Your task to perform on an android device: uninstall "Facebook Lite" Image 0: 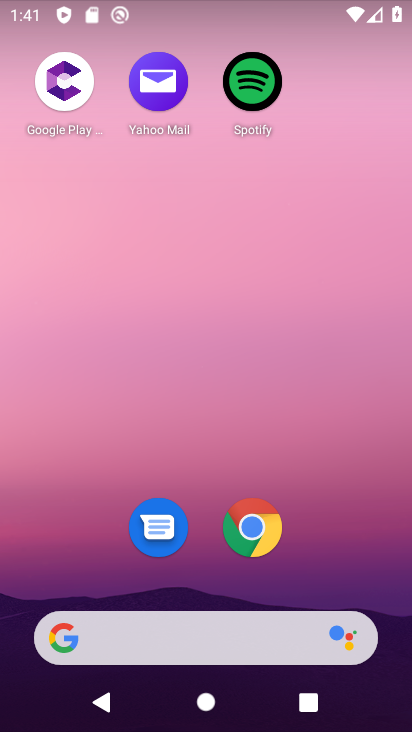
Step 0: drag from (190, 628) to (163, 11)
Your task to perform on an android device: uninstall "Facebook Lite" Image 1: 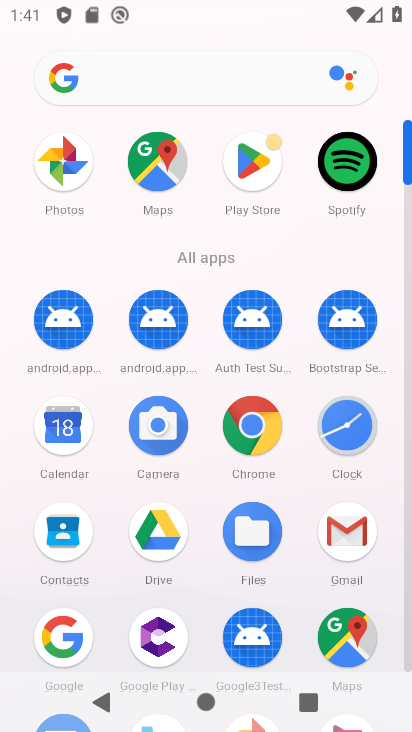
Step 1: click (246, 169)
Your task to perform on an android device: uninstall "Facebook Lite" Image 2: 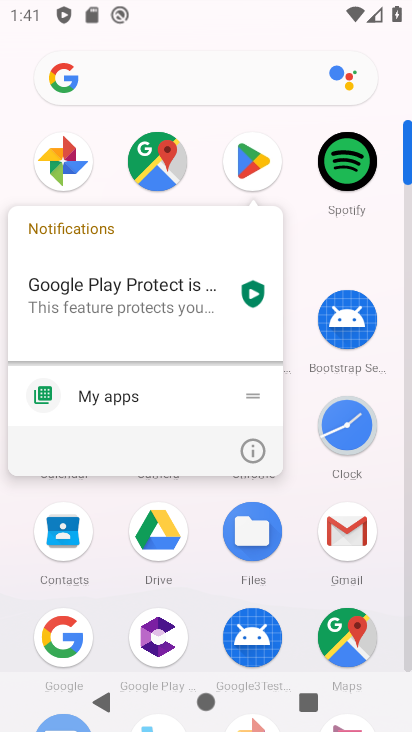
Step 2: click (251, 161)
Your task to perform on an android device: uninstall "Facebook Lite" Image 3: 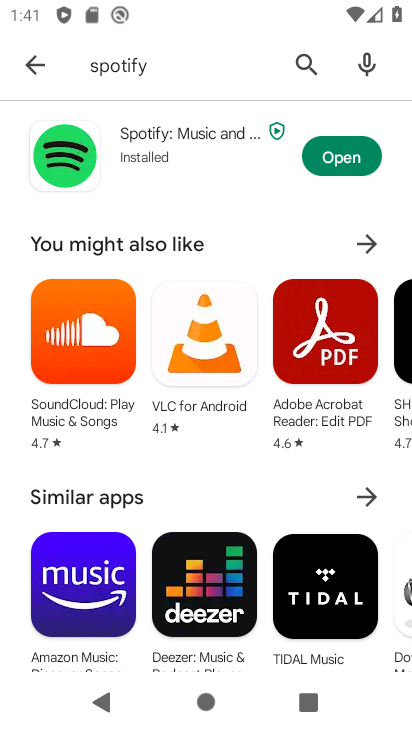
Step 3: click (302, 67)
Your task to perform on an android device: uninstall "Facebook Lite" Image 4: 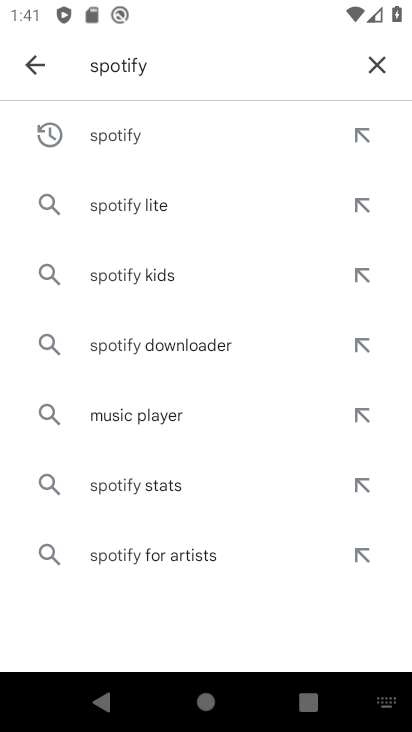
Step 4: click (375, 62)
Your task to perform on an android device: uninstall "Facebook Lite" Image 5: 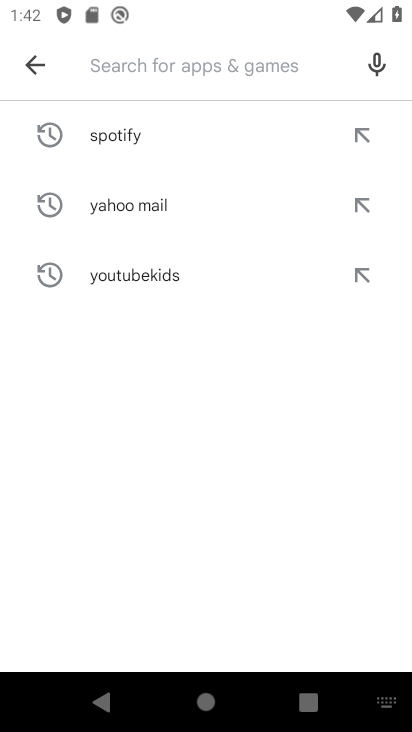
Step 5: type "facebook lite"
Your task to perform on an android device: uninstall "Facebook Lite" Image 6: 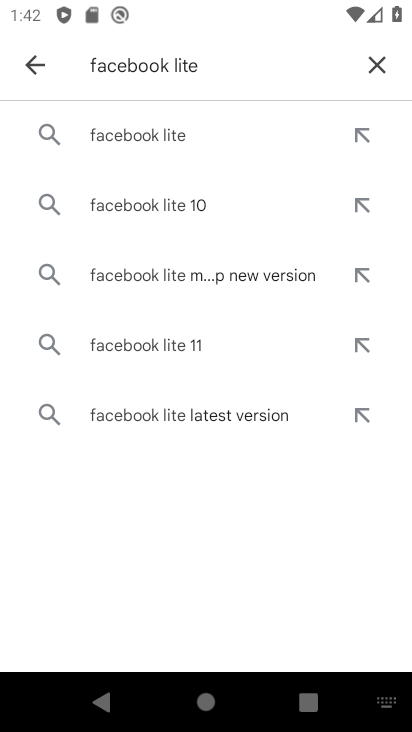
Step 6: click (154, 132)
Your task to perform on an android device: uninstall "Facebook Lite" Image 7: 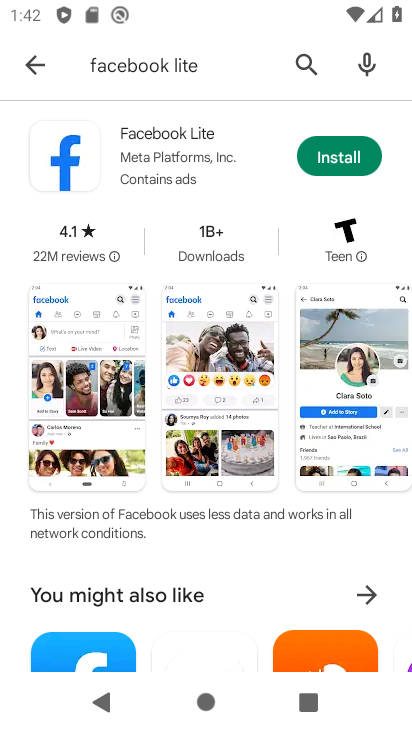
Step 7: task complete